Your task to perform on an android device: turn off javascript in the chrome app Image 0: 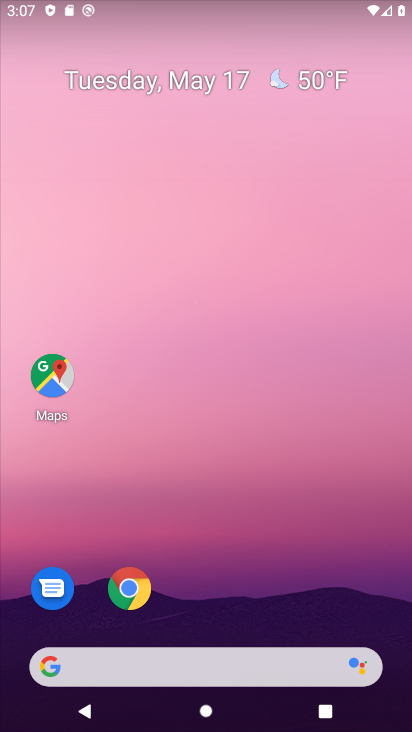
Step 0: click (130, 600)
Your task to perform on an android device: turn off javascript in the chrome app Image 1: 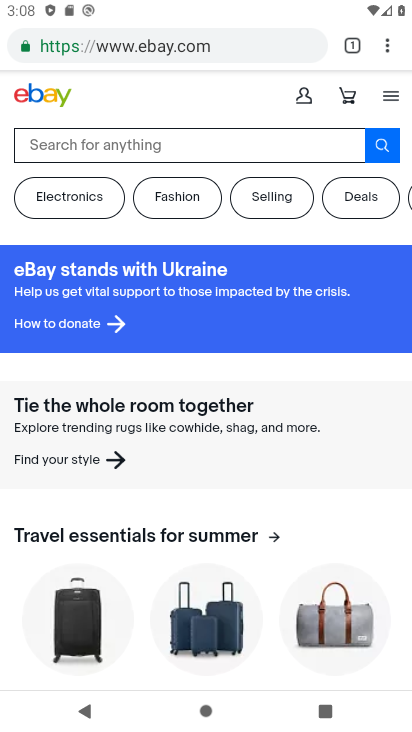
Step 1: drag from (394, 52) to (264, 553)
Your task to perform on an android device: turn off javascript in the chrome app Image 2: 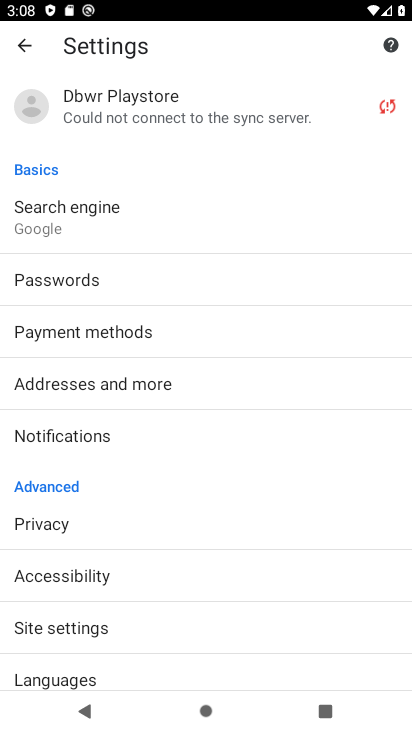
Step 2: drag from (183, 609) to (292, 269)
Your task to perform on an android device: turn off javascript in the chrome app Image 3: 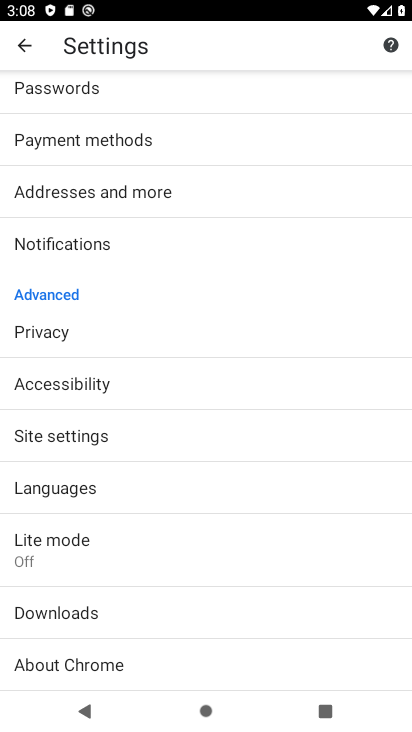
Step 3: click (116, 438)
Your task to perform on an android device: turn off javascript in the chrome app Image 4: 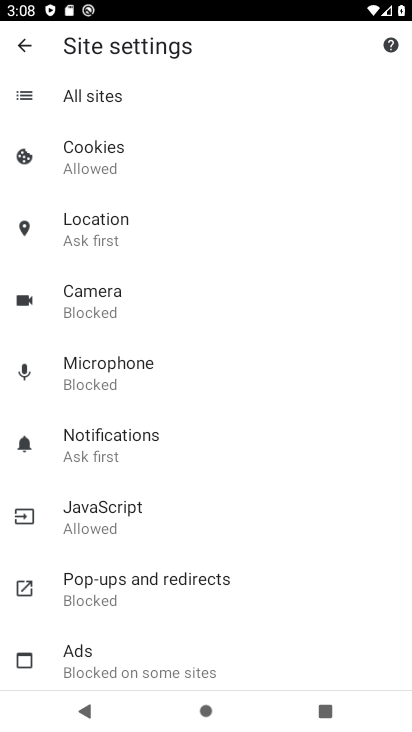
Step 4: click (143, 517)
Your task to perform on an android device: turn off javascript in the chrome app Image 5: 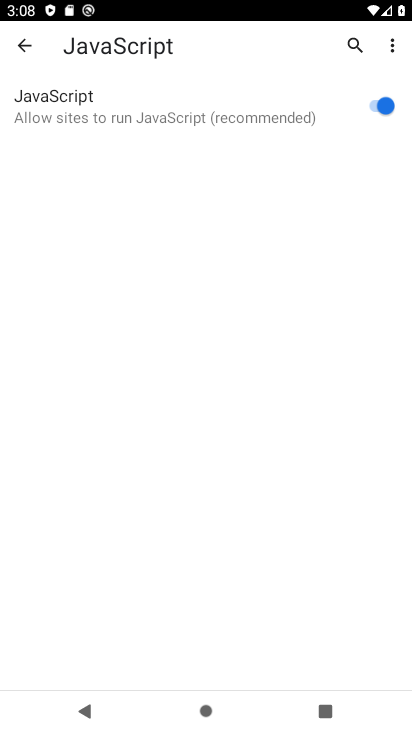
Step 5: click (383, 108)
Your task to perform on an android device: turn off javascript in the chrome app Image 6: 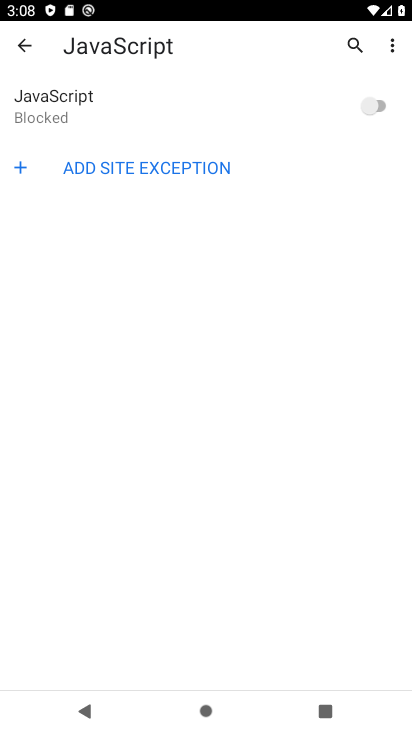
Step 6: task complete